Your task to perform on an android device: Open Maps and search for coffee Image 0: 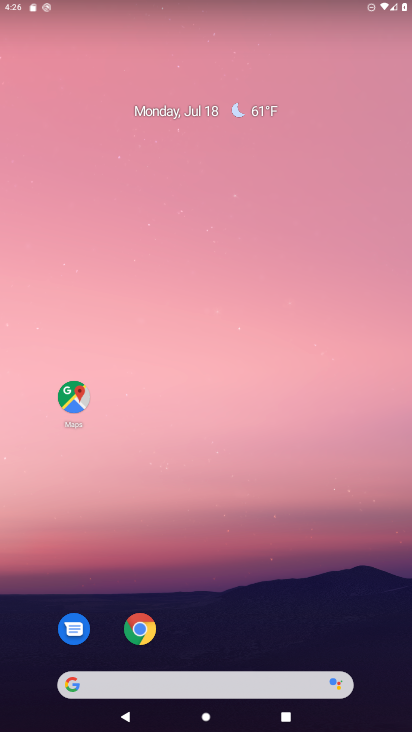
Step 0: drag from (219, 636) to (251, 257)
Your task to perform on an android device: Open Maps and search for coffee Image 1: 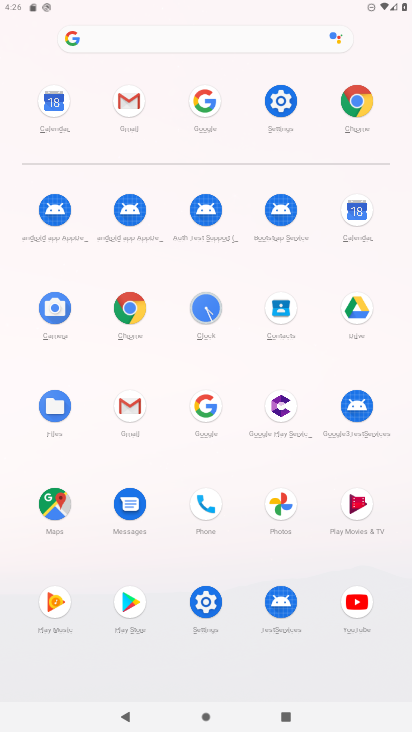
Step 1: click (49, 501)
Your task to perform on an android device: Open Maps and search for coffee Image 2: 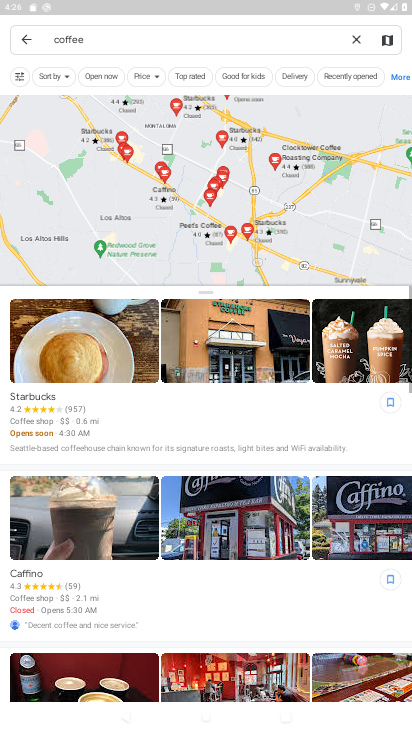
Step 2: click (156, 37)
Your task to perform on an android device: Open Maps and search for coffee Image 3: 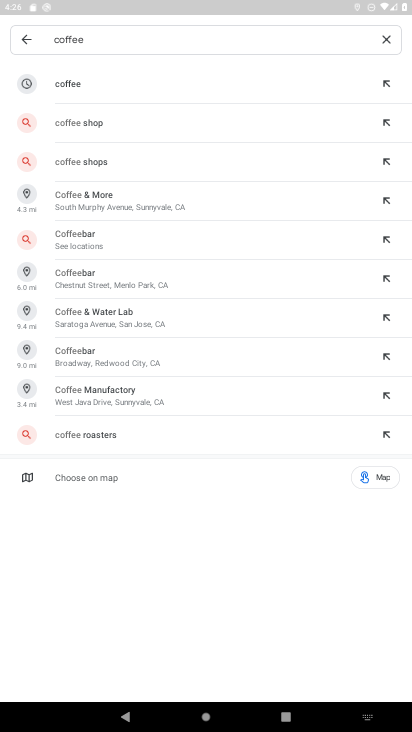
Step 3: click (387, 38)
Your task to perform on an android device: Open Maps and search for coffee Image 4: 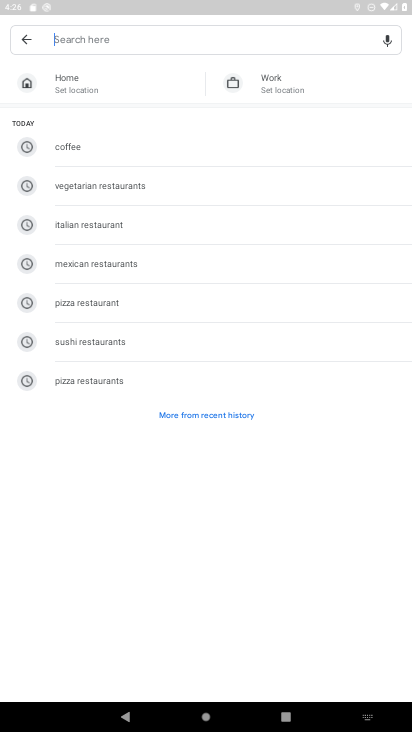
Step 4: click (77, 148)
Your task to perform on an android device: Open Maps and search for coffee Image 5: 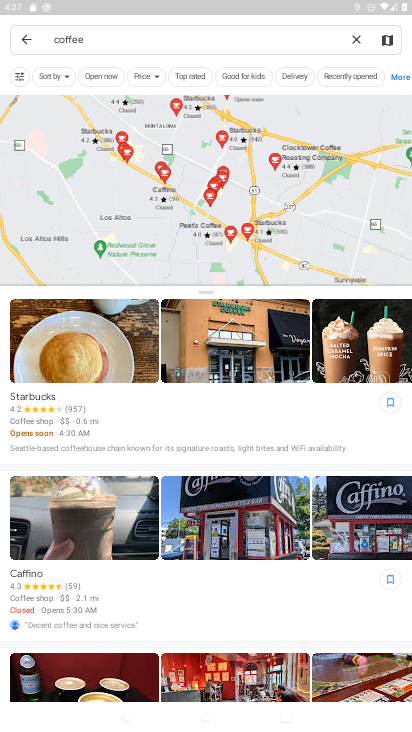
Step 5: task complete